Your task to perform on an android device: Open Google Maps and go to "Timeline" Image 0: 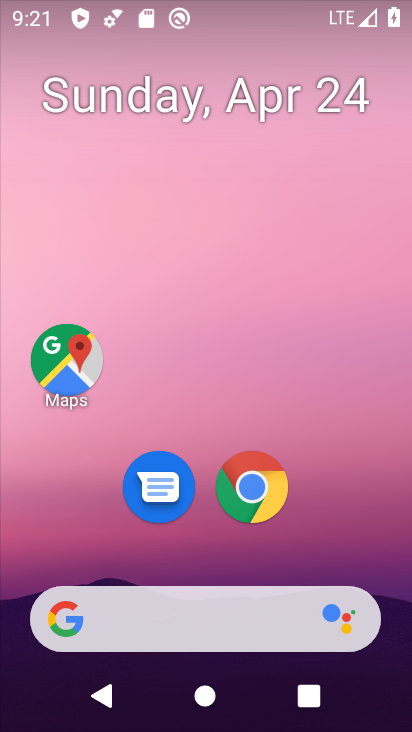
Step 0: click (262, 490)
Your task to perform on an android device: Open Google Maps and go to "Timeline" Image 1: 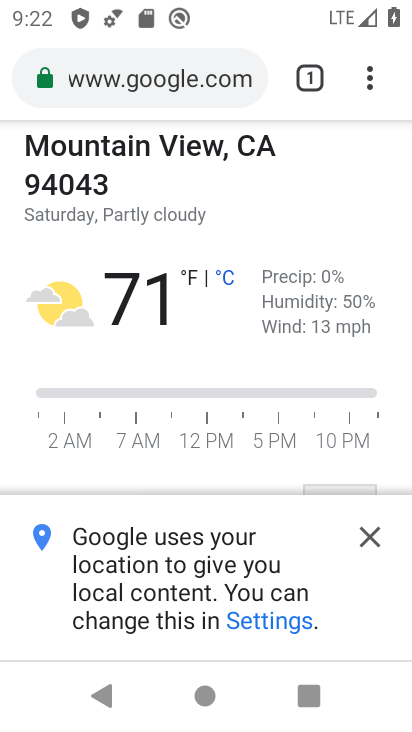
Step 1: drag from (369, 77) to (409, 500)
Your task to perform on an android device: Open Google Maps and go to "Timeline" Image 2: 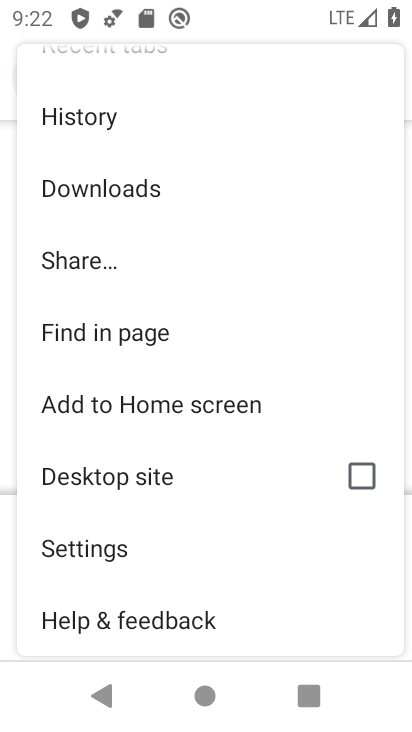
Step 2: press home button
Your task to perform on an android device: Open Google Maps and go to "Timeline" Image 3: 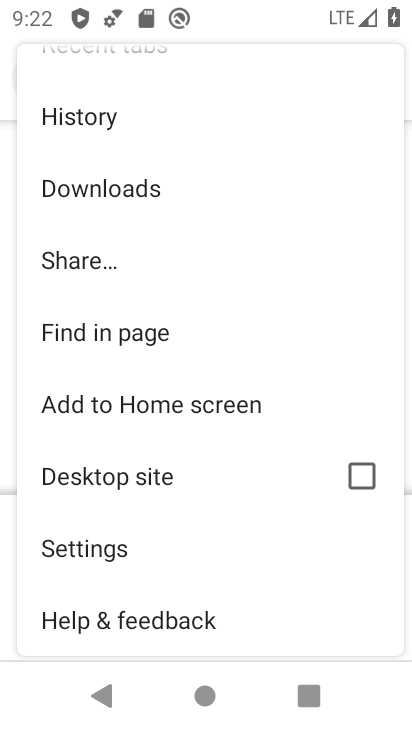
Step 3: click (409, 500)
Your task to perform on an android device: Open Google Maps and go to "Timeline" Image 4: 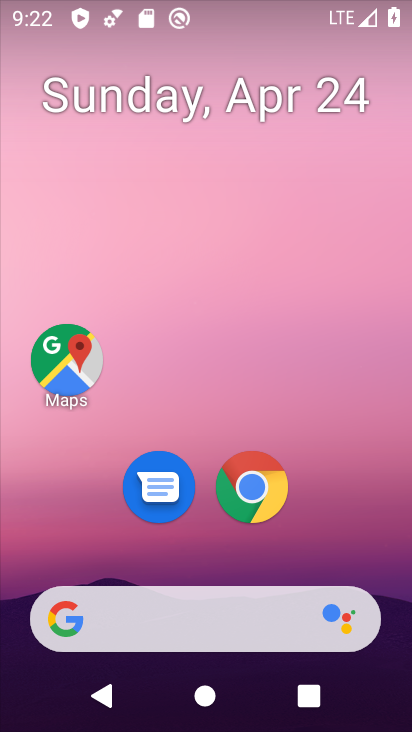
Step 4: drag from (325, 531) to (290, 0)
Your task to perform on an android device: Open Google Maps and go to "Timeline" Image 5: 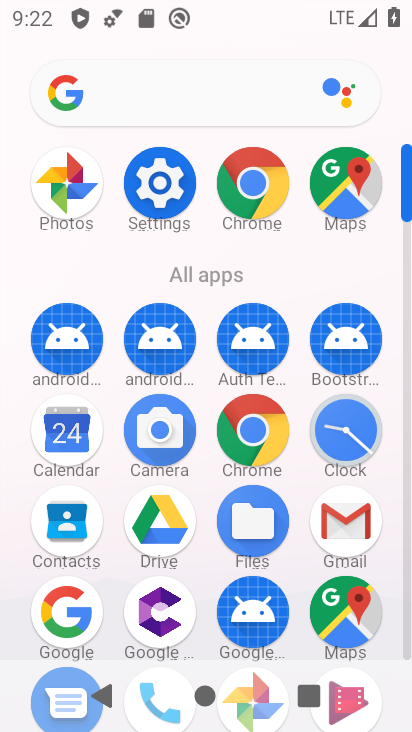
Step 5: click (353, 169)
Your task to perform on an android device: Open Google Maps and go to "Timeline" Image 6: 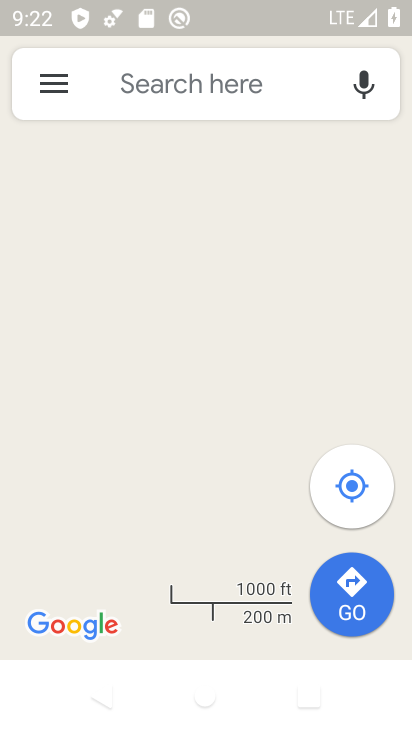
Step 6: click (45, 94)
Your task to perform on an android device: Open Google Maps and go to "Timeline" Image 7: 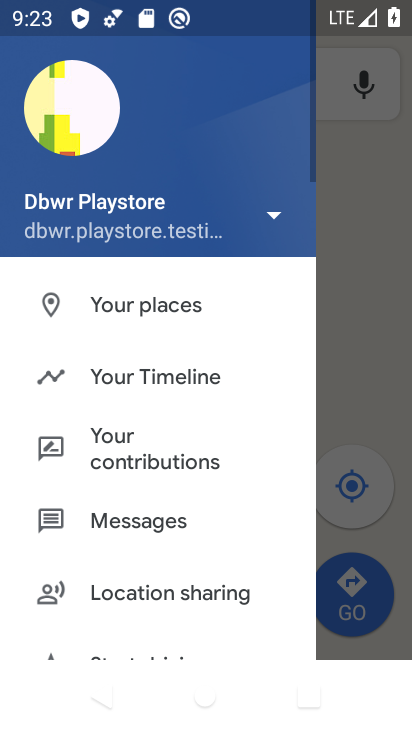
Step 7: click (102, 374)
Your task to perform on an android device: Open Google Maps and go to "Timeline" Image 8: 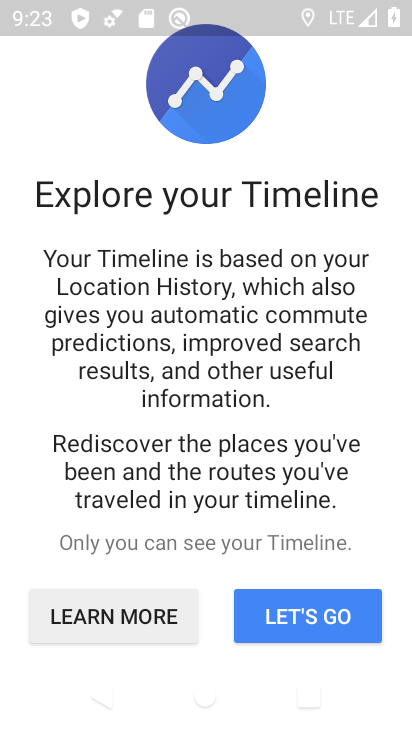
Step 8: click (276, 627)
Your task to perform on an android device: Open Google Maps and go to "Timeline" Image 9: 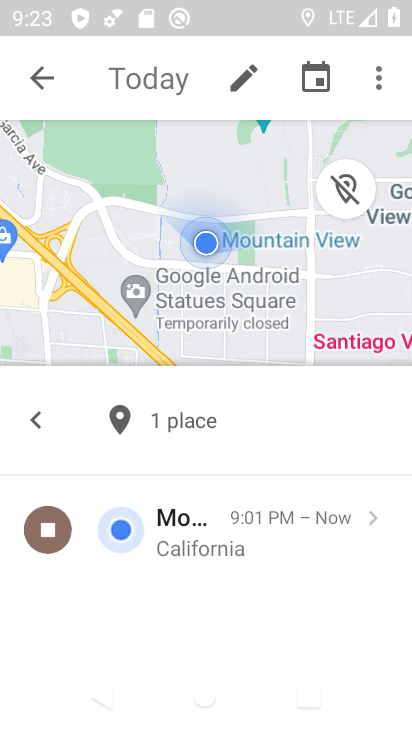
Step 9: task complete